Your task to perform on an android device: turn on javascript in the chrome app Image 0: 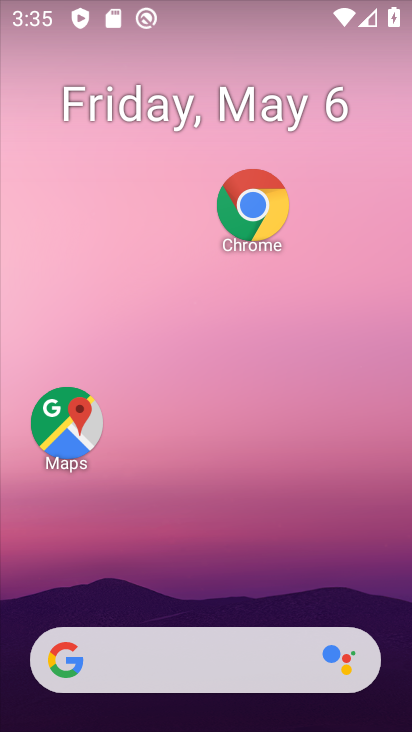
Step 0: drag from (214, 618) to (201, 61)
Your task to perform on an android device: turn on javascript in the chrome app Image 1: 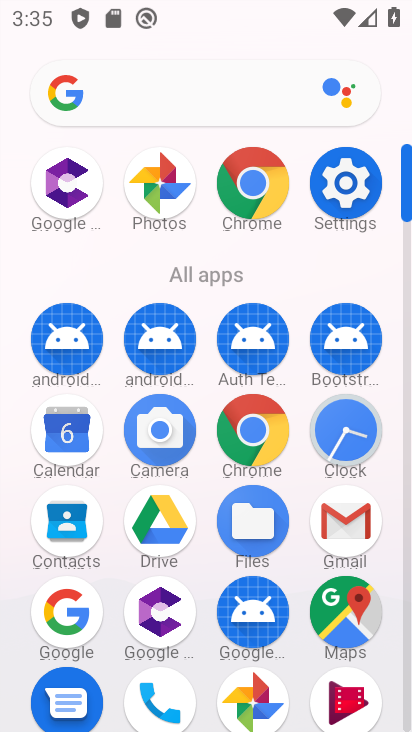
Step 1: click (268, 191)
Your task to perform on an android device: turn on javascript in the chrome app Image 2: 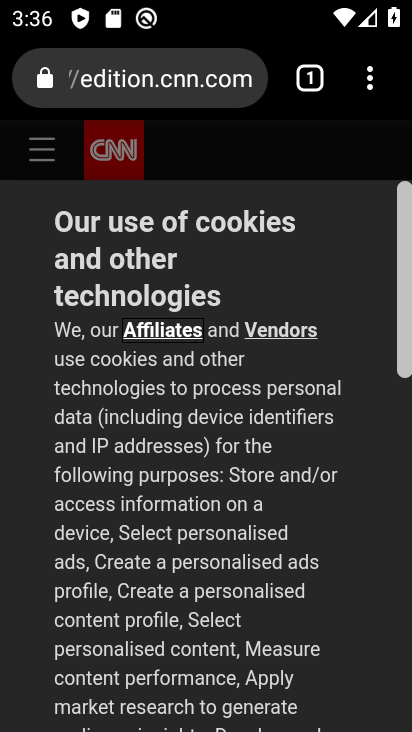
Step 2: click (374, 92)
Your task to perform on an android device: turn on javascript in the chrome app Image 3: 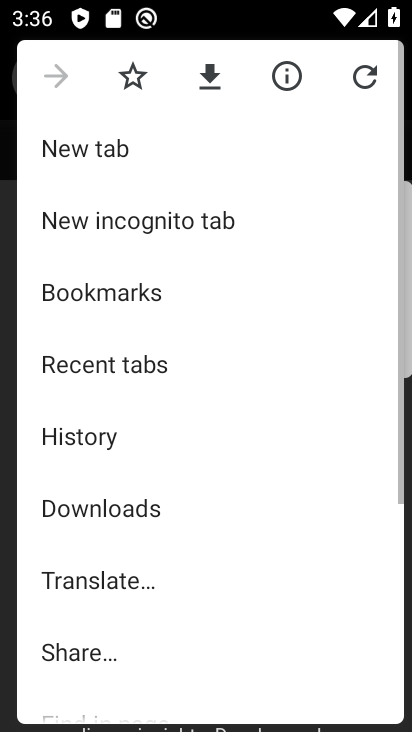
Step 3: drag from (242, 448) to (178, 72)
Your task to perform on an android device: turn on javascript in the chrome app Image 4: 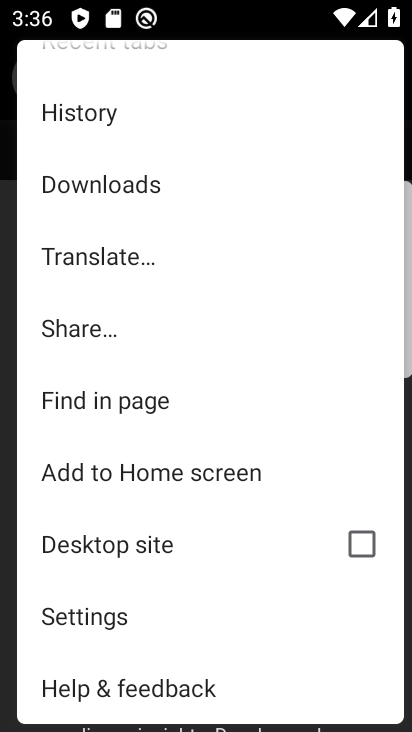
Step 4: drag from (239, 545) to (182, 175)
Your task to perform on an android device: turn on javascript in the chrome app Image 5: 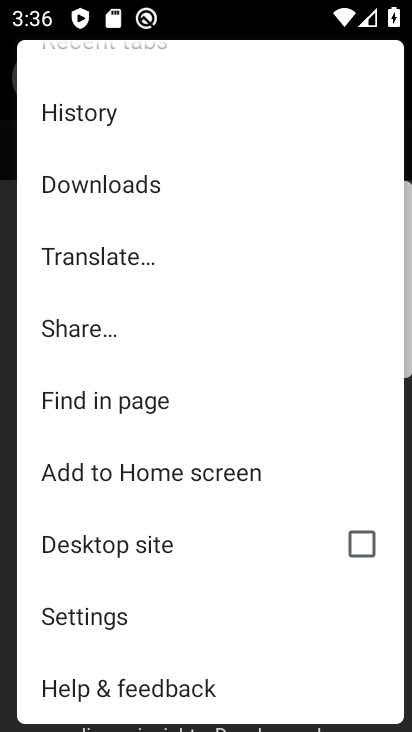
Step 5: click (93, 618)
Your task to perform on an android device: turn on javascript in the chrome app Image 6: 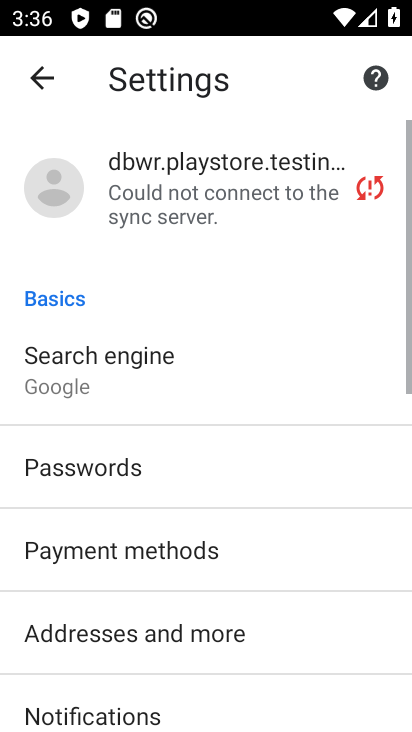
Step 6: drag from (218, 599) to (189, 102)
Your task to perform on an android device: turn on javascript in the chrome app Image 7: 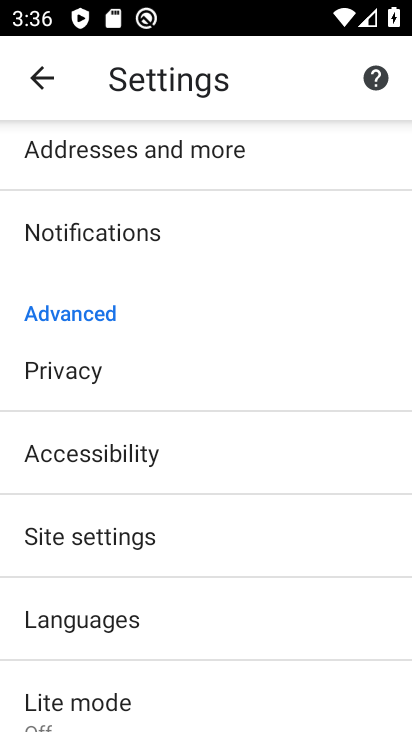
Step 7: drag from (146, 642) to (121, 238)
Your task to perform on an android device: turn on javascript in the chrome app Image 8: 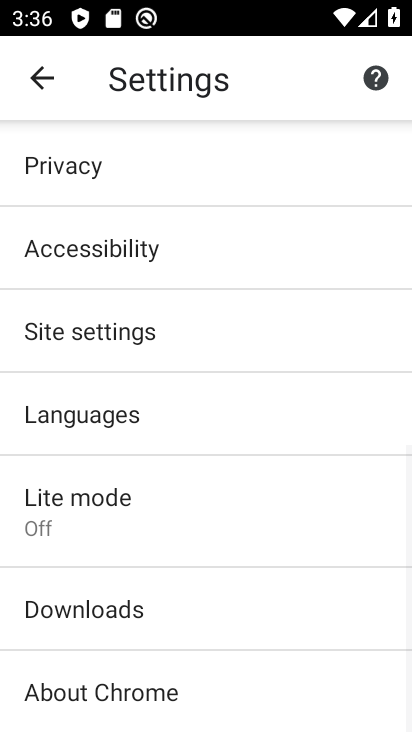
Step 8: click (91, 346)
Your task to perform on an android device: turn on javascript in the chrome app Image 9: 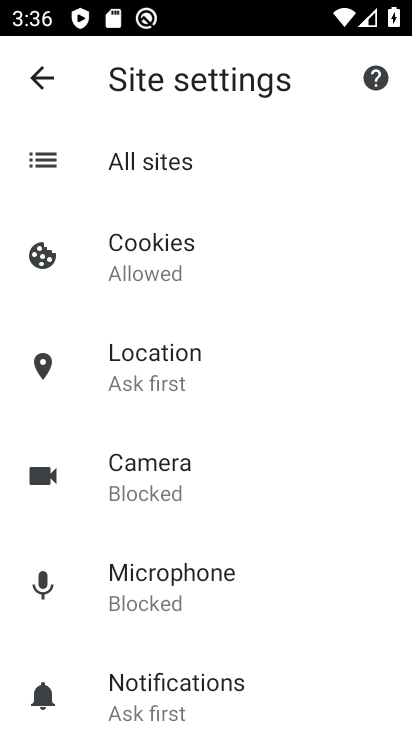
Step 9: drag from (251, 606) to (198, 269)
Your task to perform on an android device: turn on javascript in the chrome app Image 10: 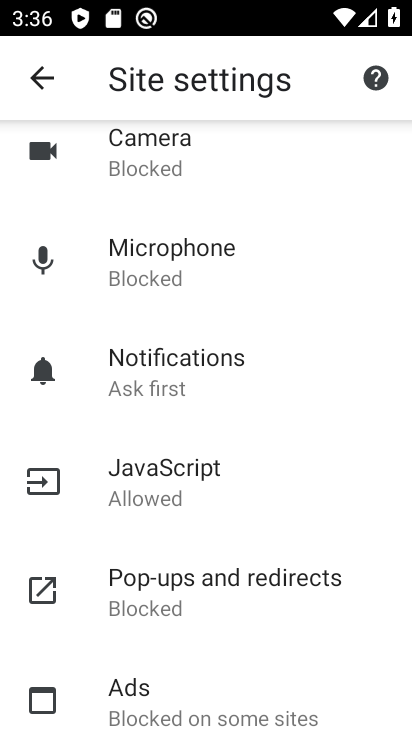
Step 10: drag from (205, 648) to (174, 484)
Your task to perform on an android device: turn on javascript in the chrome app Image 11: 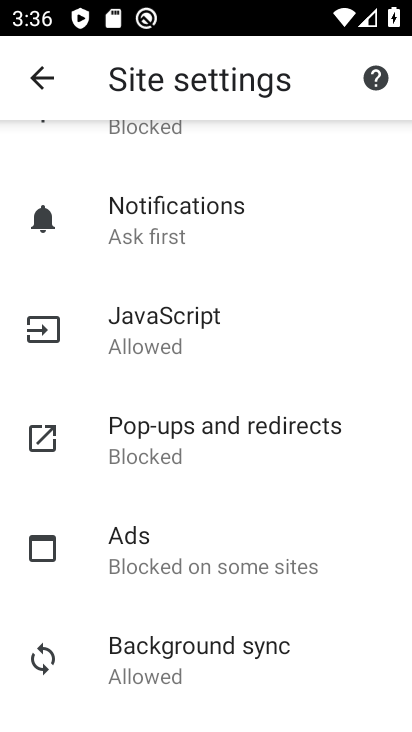
Step 11: click (152, 354)
Your task to perform on an android device: turn on javascript in the chrome app Image 12: 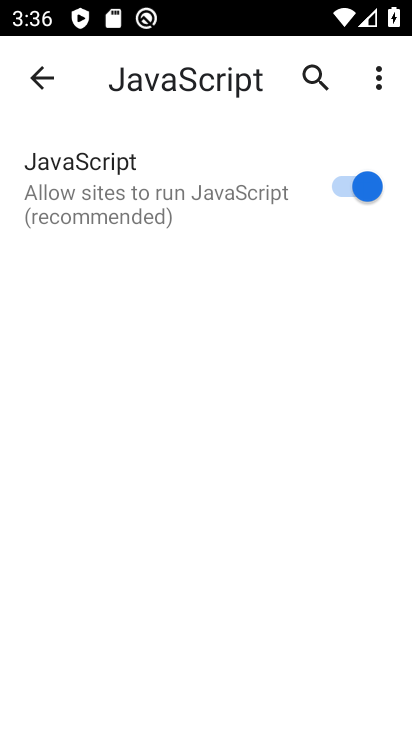
Step 12: task complete